Your task to perform on an android device: Where can I buy a nice beach hat? Image 0: 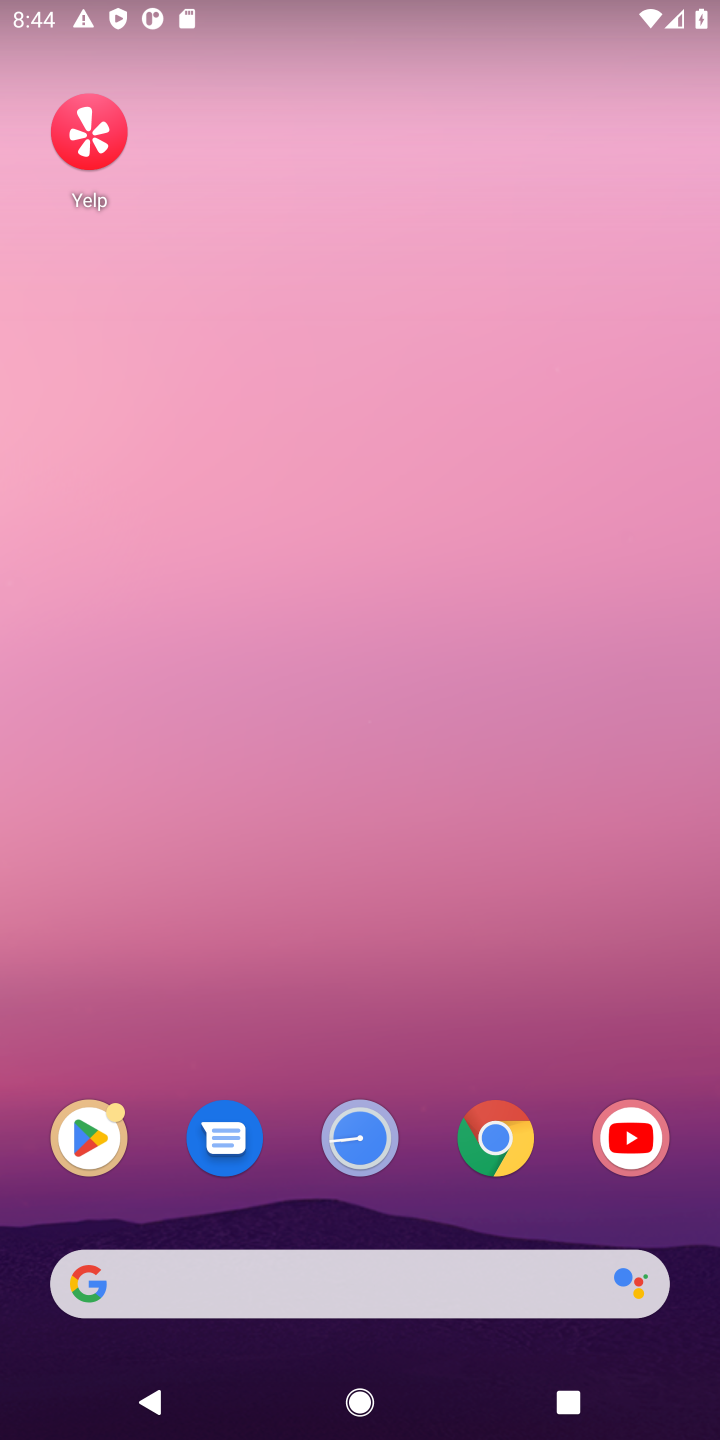
Step 0: click (495, 1278)
Your task to perform on an android device: Where can I buy a nice beach hat? Image 1: 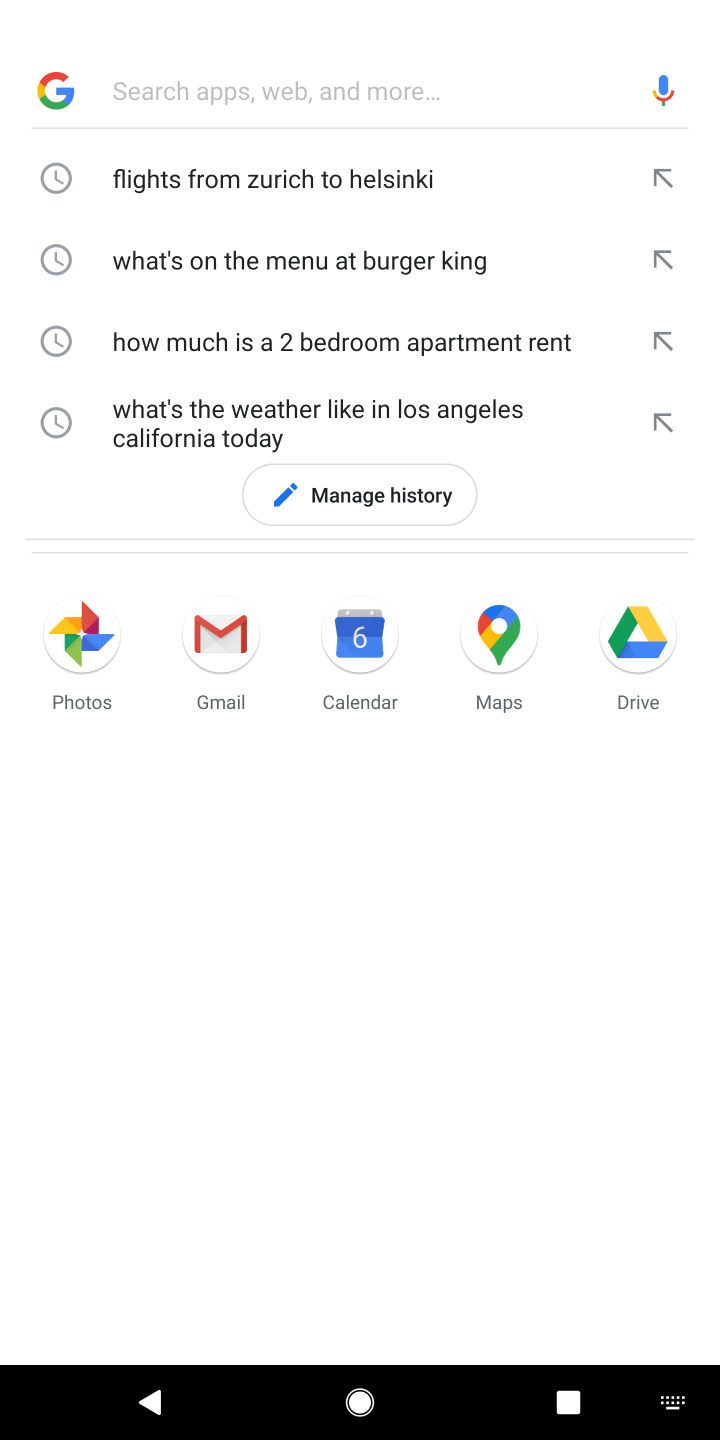
Step 1: type "Where can I buy a nice beach hat"
Your task to perform on an android device: Where can I buy a nice beach hat? Image 2: 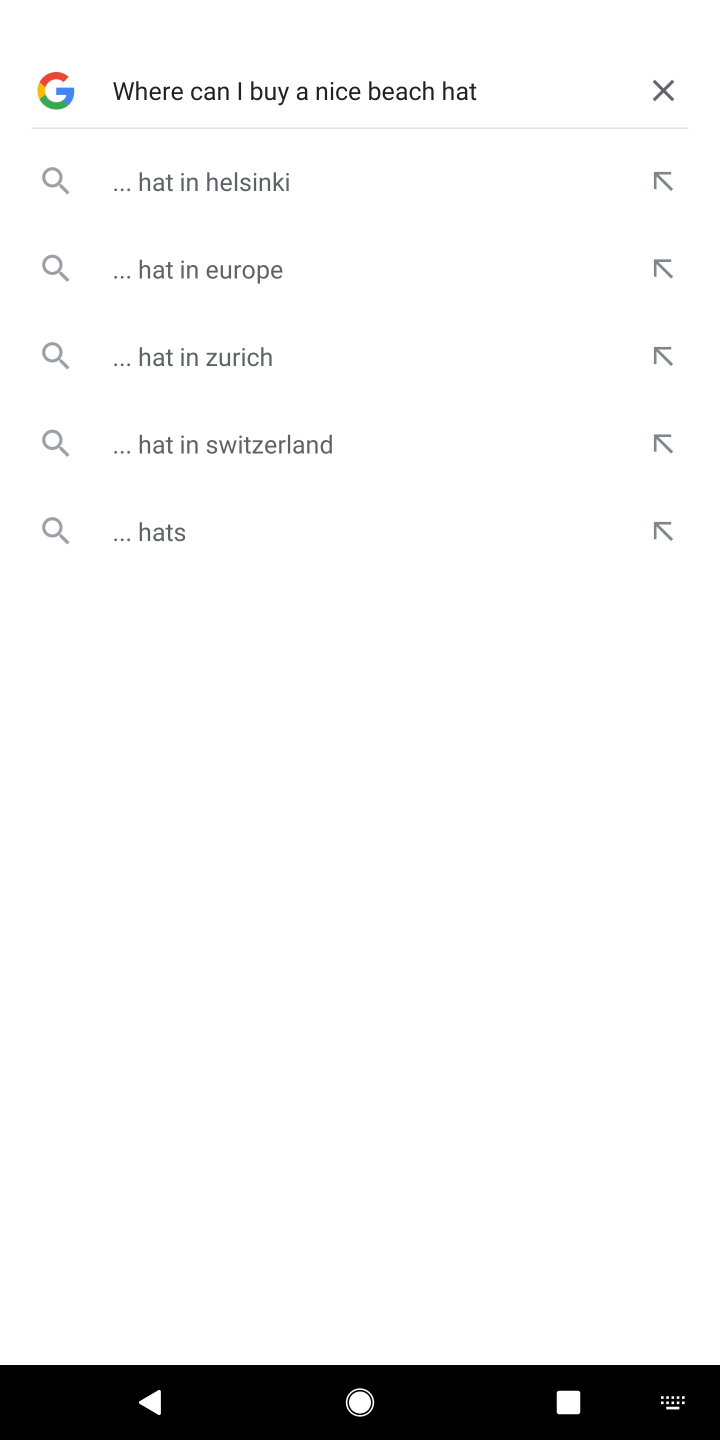
Step 2: click (155, 534)
Your task to perform on an android device: Where can I buy a nice beach hat? Image 3: 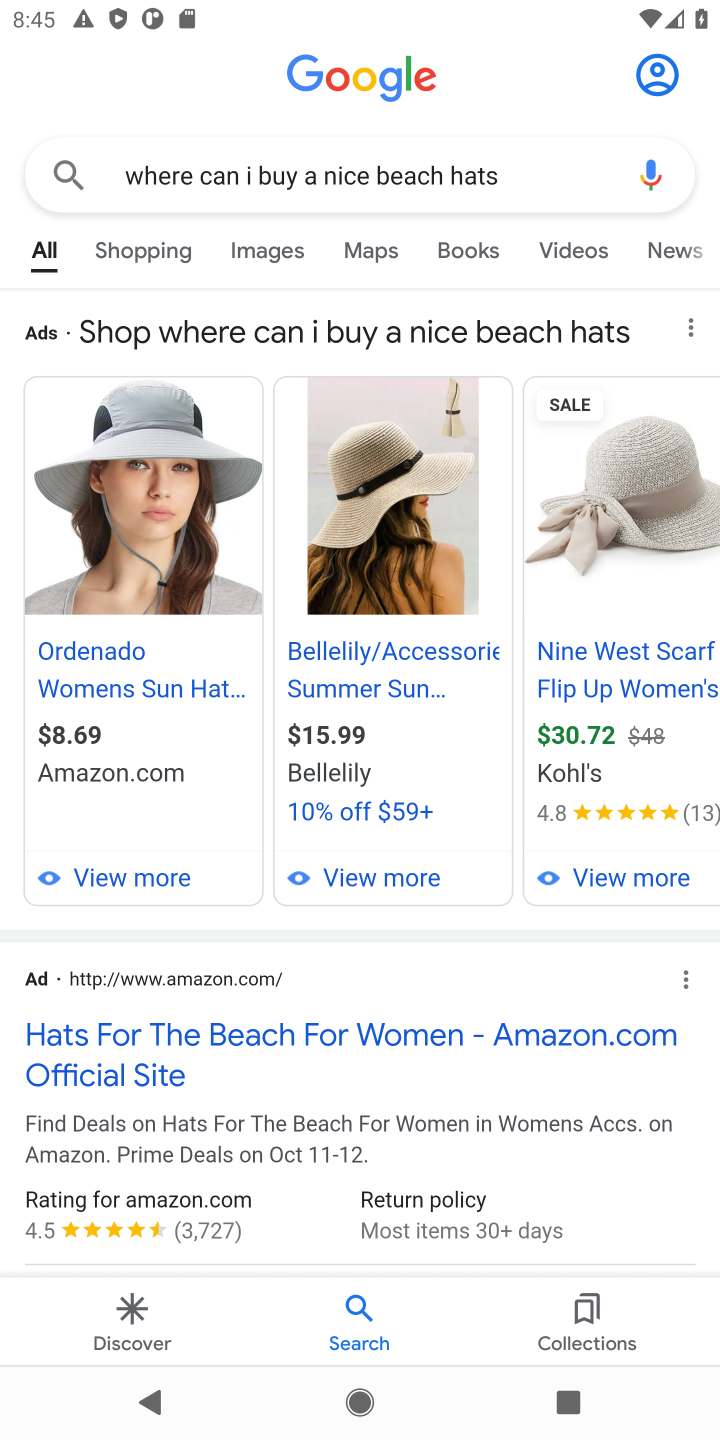
Step 3: task complete